Your task to perform on an android device: Search for Italian restaurants on Maps Image 0: 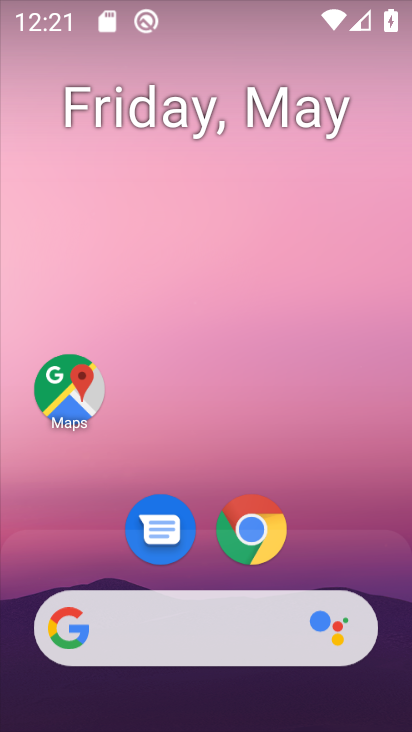
Step 0: click (84, 399)
Your task to perform on an android device: Search for Italian restaurants on Maps Image 1: 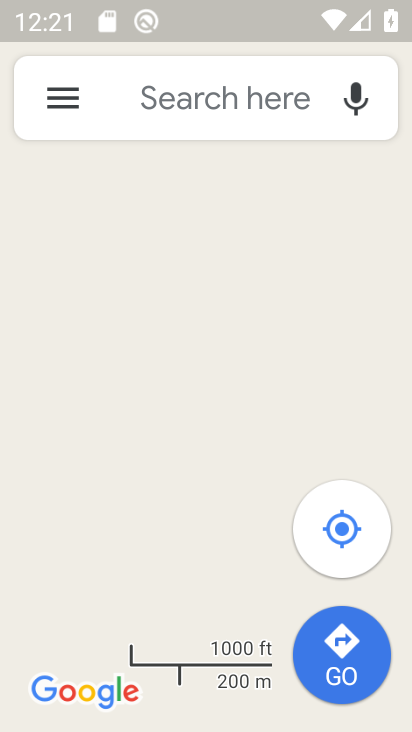
Step 1: click (185, 95)
Your task to perform on an android device: Search for Italian restaurants on Maps Image 2: 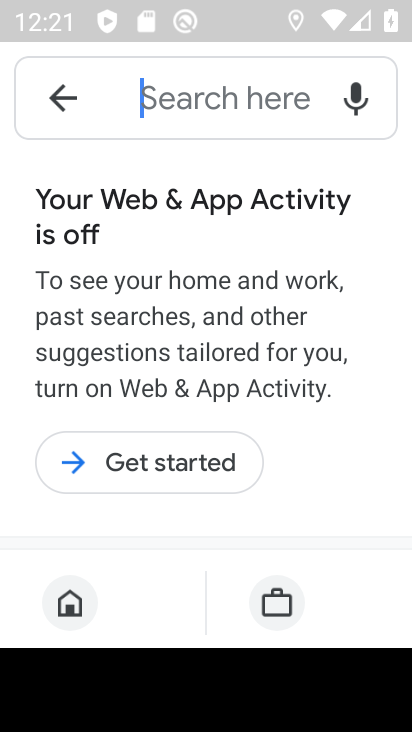
Step 2: drag from (291, 404) to (232, 96)
Your task to perform on an android device: Search for Italian restaurants on Maps Image 3: 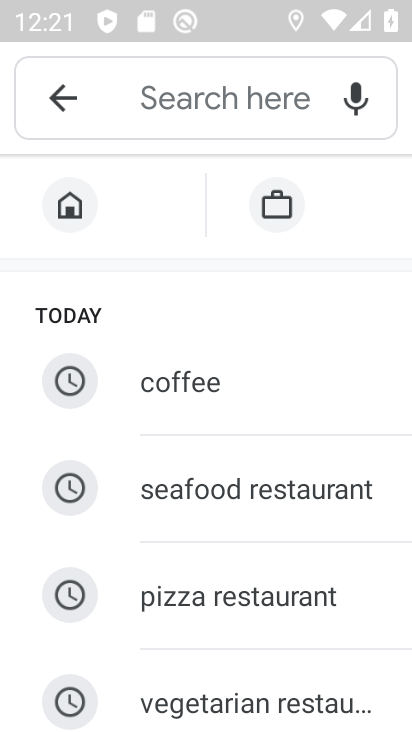
Step 3: drag from (195, 630) to (179, 295)
Your task to perform on an android device: Search for Italian restaurants on Maps Image 4: 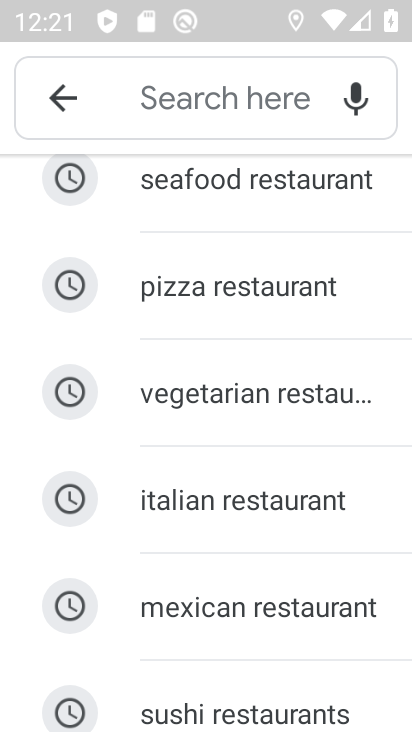
Step 4: click (176, 500)
Your task to perform on an android device: Search for Italian restaurants on Maps Image 5: 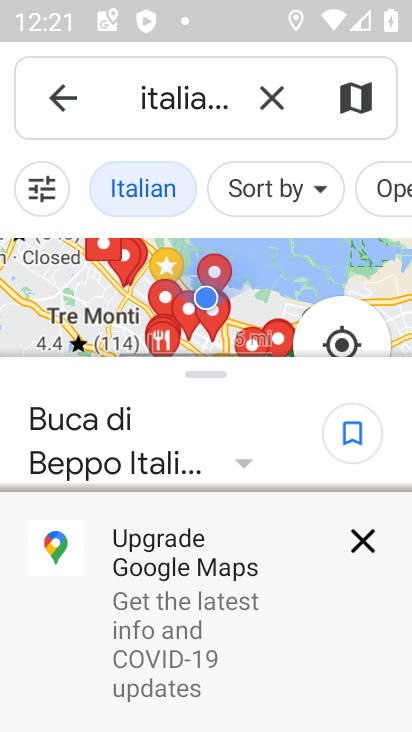
Step 5: task complete